Your task to perform on an android device: Open battery settings Image 0: 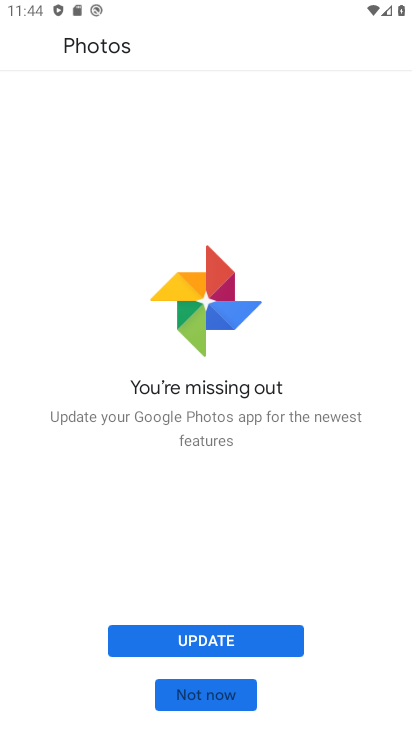
Step 0: press home button
Your task to perform on an android device: Open battery settings Image 1: 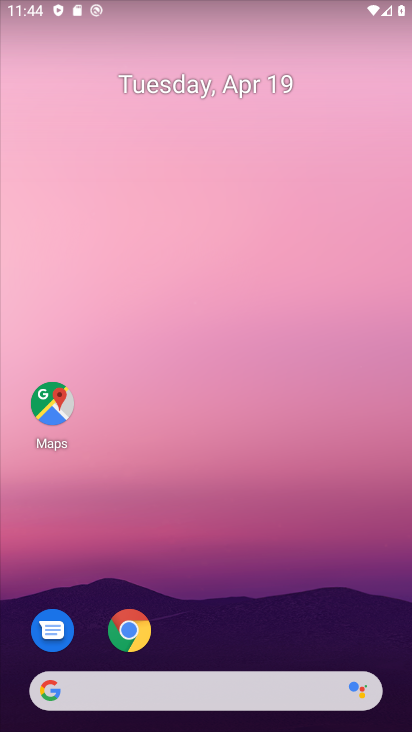
Step 1: drag from (274, 377) to (253, 191)
Your task to perform on an android device: Open battery settings Image 2: 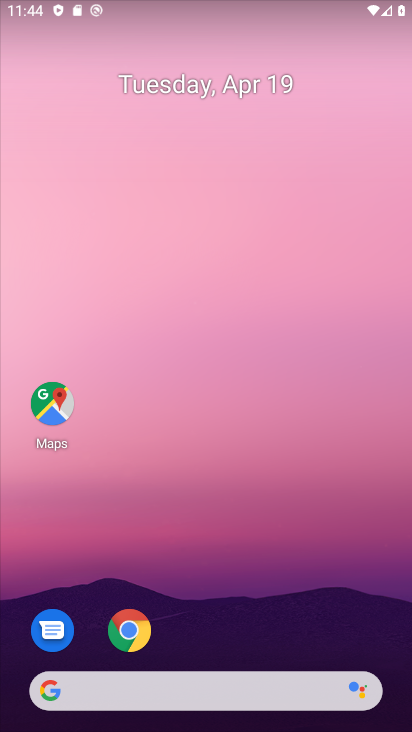
Step 2: drag from (320, 626) to (250, 75)
Your task to perform on an android device: Open battery settings Image 3: 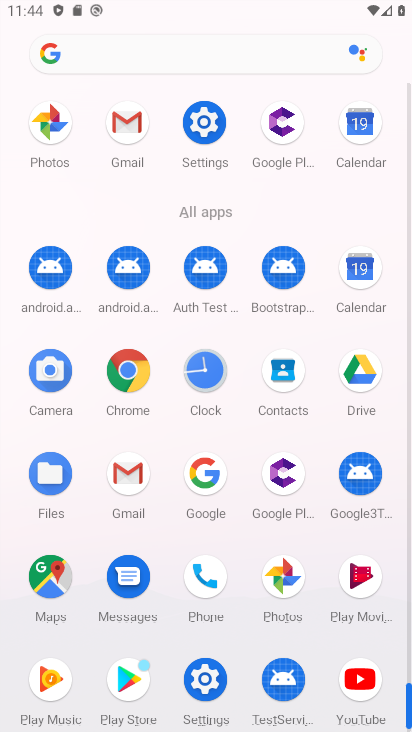
Step 3: click (205, 678)
Your task to perform on an android device: Open battery settings Image 4: 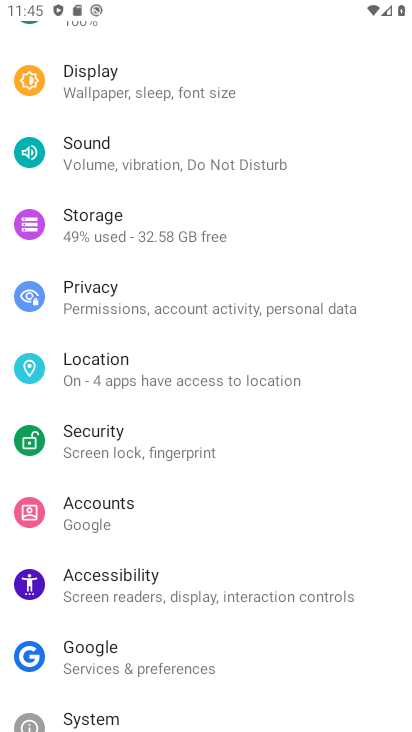
Step 4: drag from (246, 209) to (277, 488)
Your task to perform on an android device: Open battery settings Image 5: 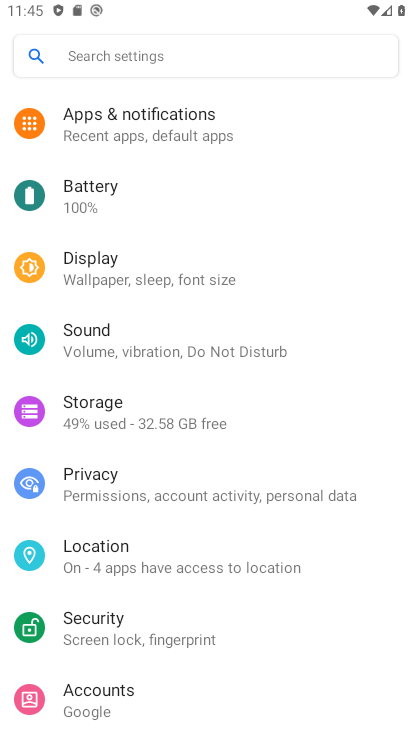
Step 5: click (74, 185)
Your task to perform on an android device: Open battery settings Image 6: 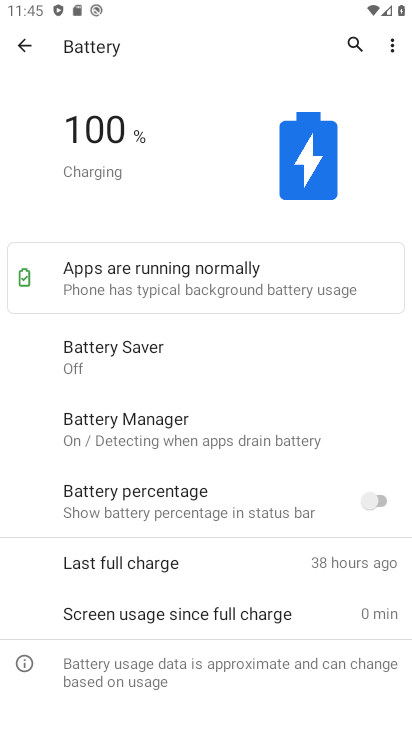
Step 6: task complete